Your task to perform on an android device: delete browsing data in the chrome app Image 0: 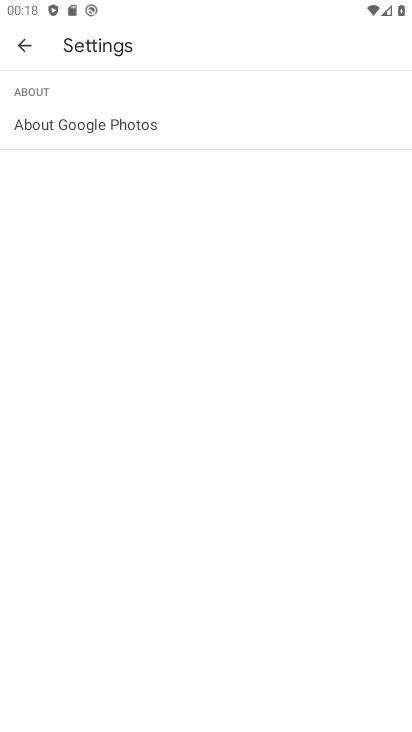
Step 0: press home button
Your task to perform on an android device: delete browsing data in the chrome app Image 1: 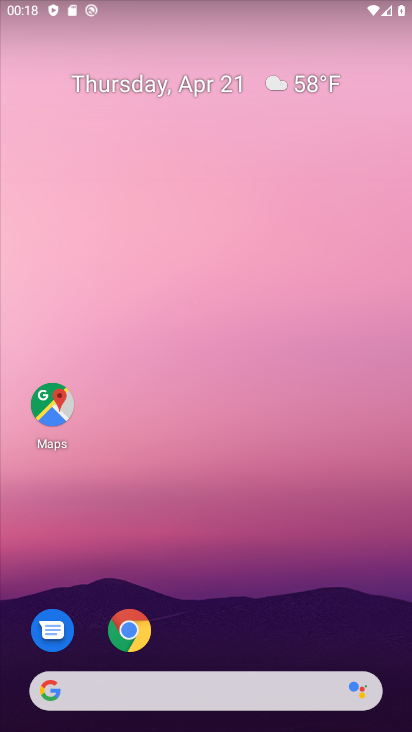
Step 1: drag from (172, 689) to (298, 224)
Your task to perform on an android device: delete browsing data in the chrome app Image 2: 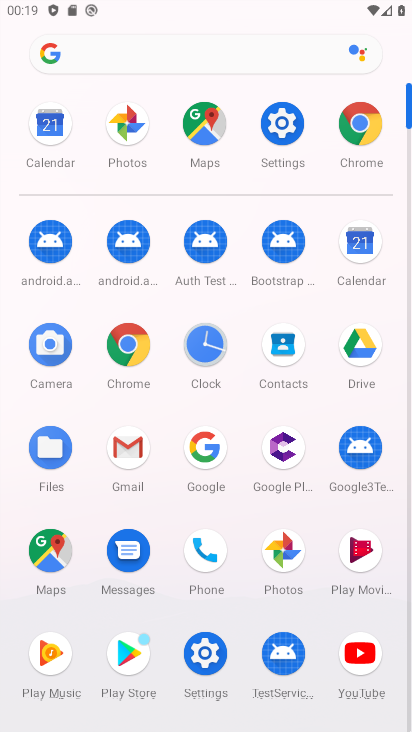
Step 2: click (369, 124)
Your task to perform on an android device: delete browsing data in the chrome app Image 3: 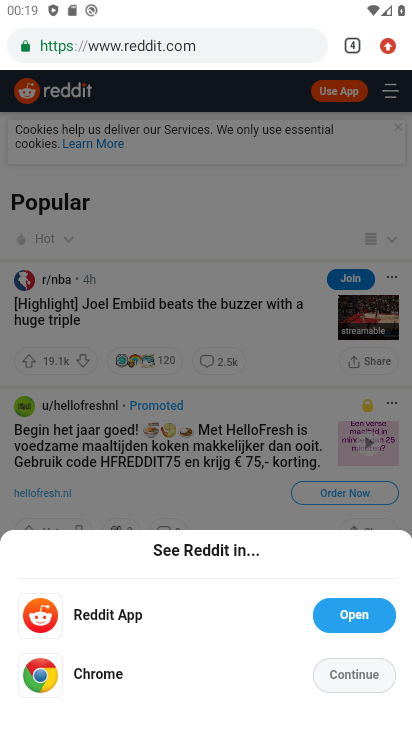
Step 3: click (388, 51)
Your task to perform on an android device: delete browsing data in the chrome app Image 4: 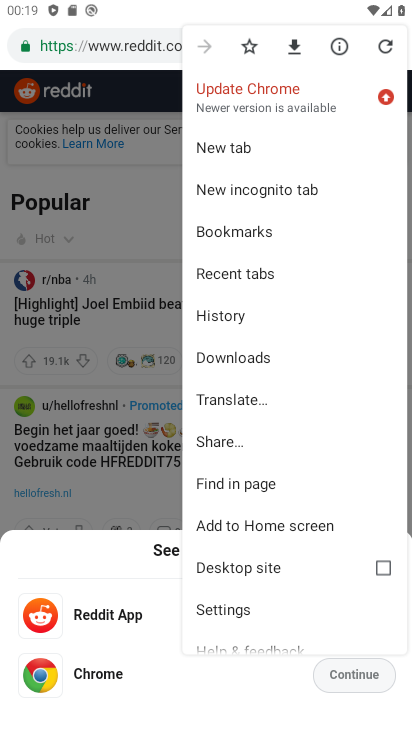
Step 4: click (231, 608)
Your task to perform on an android device: delete browsing data in the chrome app Image 5: 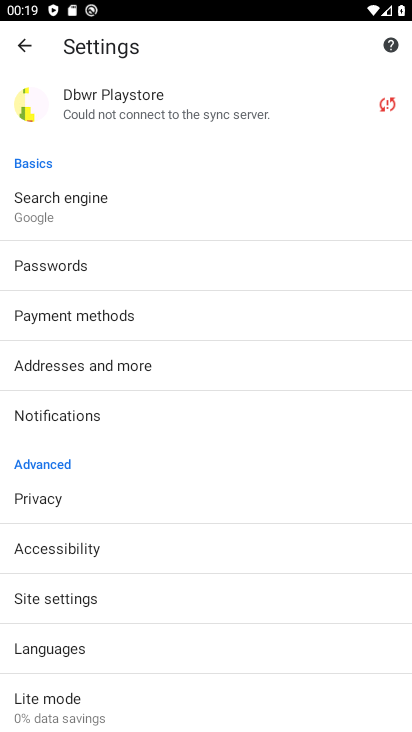
Step 5: click (60, 494)
Your task to perform on an android device: delete browsing data in the chrome app Image 6: 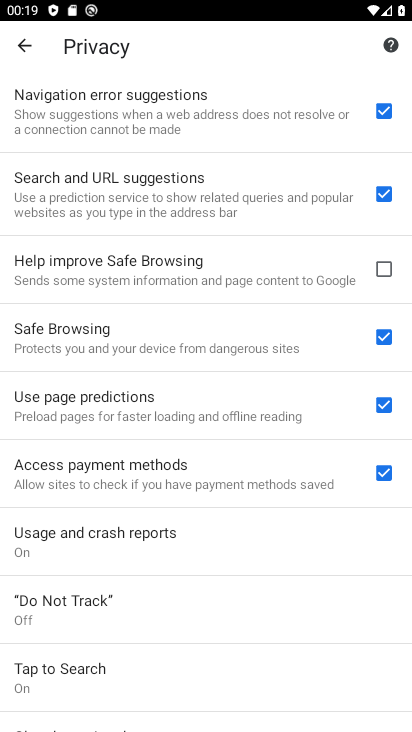
Step 6: drag from (115, 670) to (257, 207)
Your task to perform on an android device: delete browsing data in the chrome app Image 7: 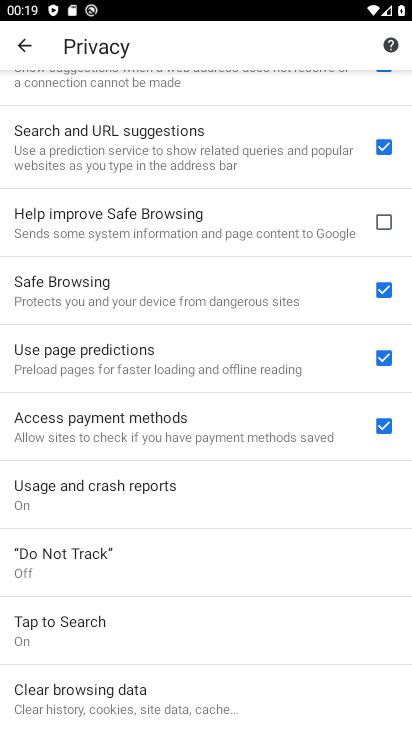
Step 7: click (108, 707)
Your task to perform on an android device: delete browsing data in the chrome app Image 8: 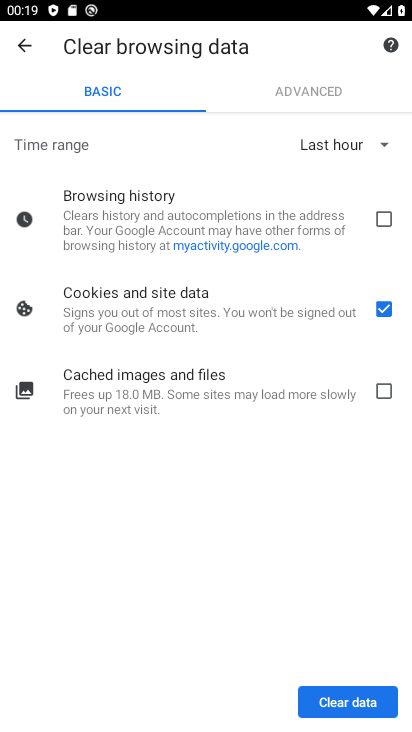
Step 8: click (385, 218)
Your task to perform on an android device: delete browsing data in the chrome app Image 9: 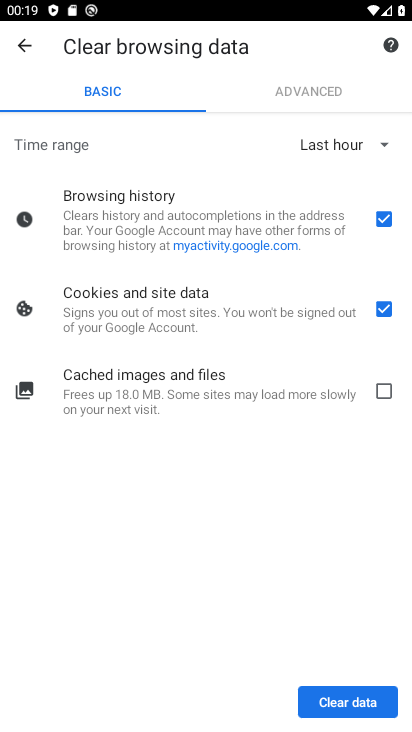
Step 9: click (383, 388)
Your task to perform on an android device: delete browsing data in the chrome app Image 10: 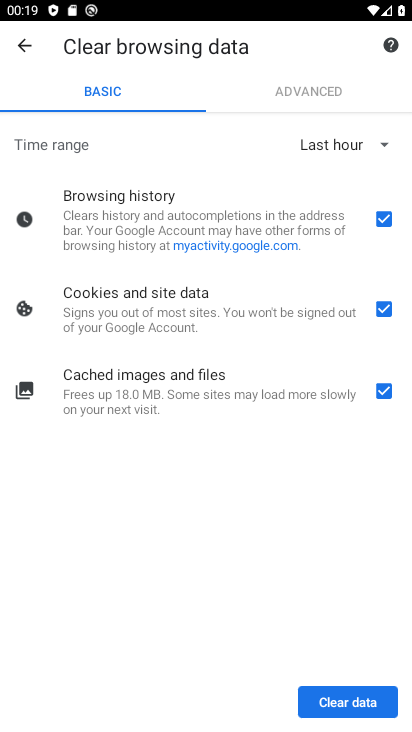
Step 10: click (346, 705)
Your task to perform on an android device: delete browsing data in the chrome app Image 11: 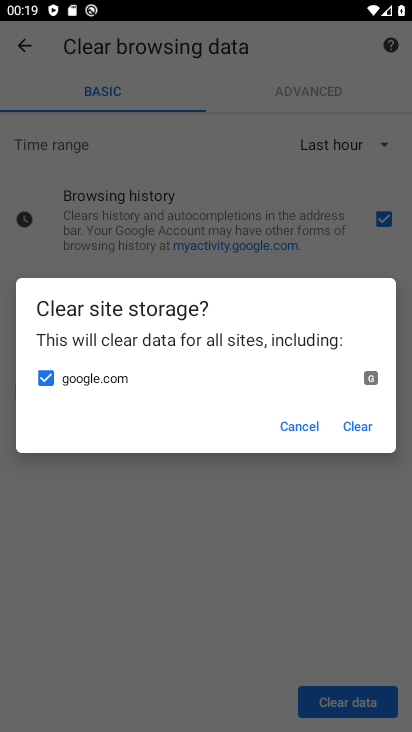
Step 11: click (352, 426)
Your task to perform on an android device: delete browsing data in the chrome app Image 12: 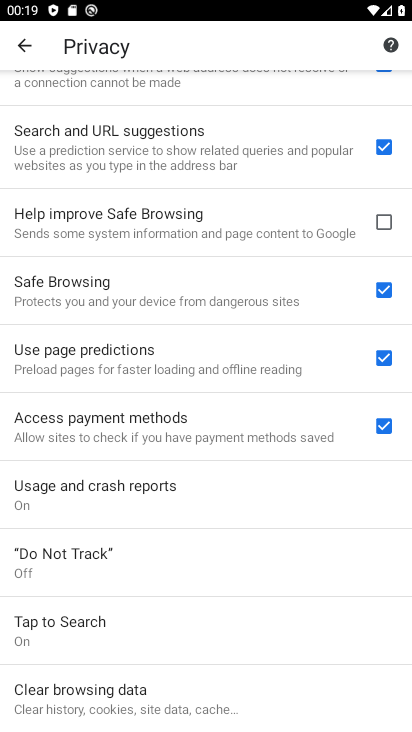
Step 12: task complete